Your task to perform on an android device: turn off notifications settings in the gmail app Image 0: 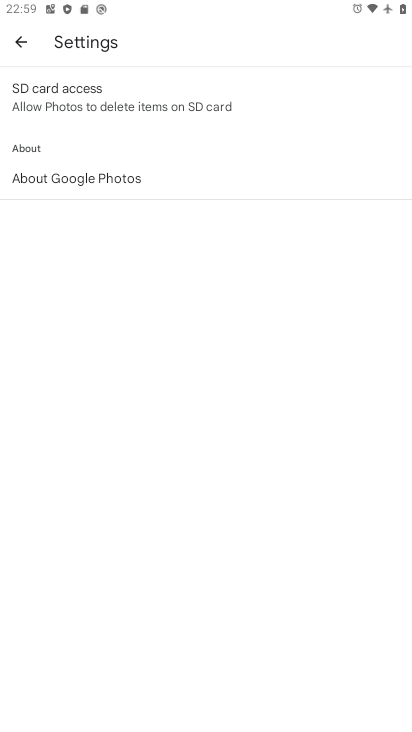
Step 0: press home button
Your task to perform on an android device: turn off notifications settings in the gmail app Image 1: 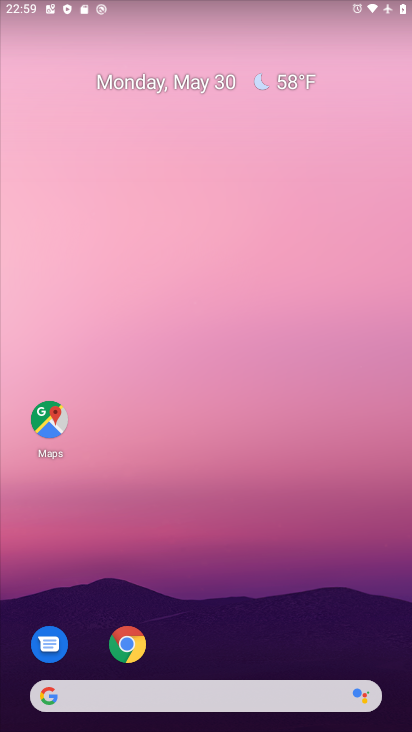
Step 1: drag from (396, 652) to (322, 156)
Your task to perform on an android device: turn off notifications settings in the gmail app Image 2: 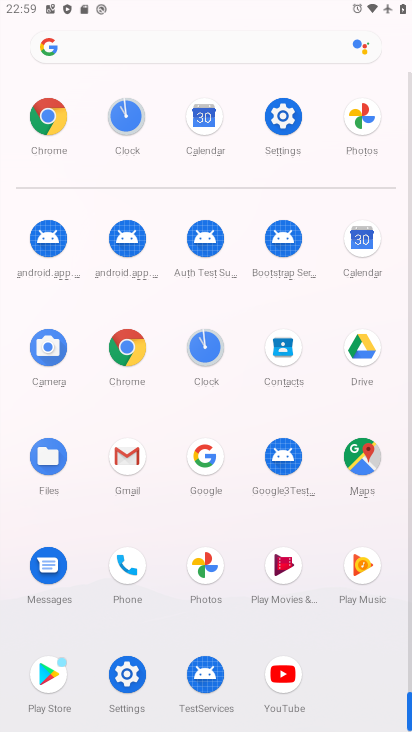
Step 2: click (126, 453)
Your task to perform on an android device: turn off notifications settings in the gmail app Image 3: 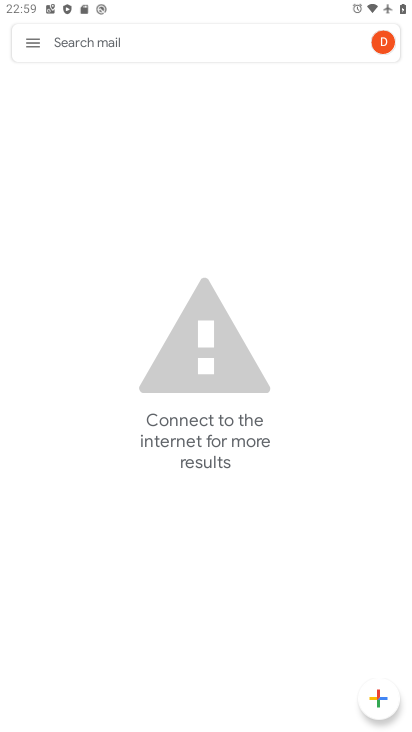
Step 3: click (28, 41)
Your task to perform on an android device: turn off notifications settings in the gmail app Image 4: 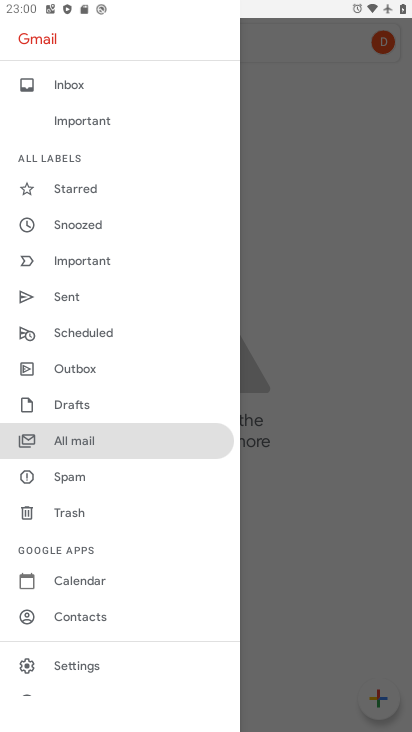
Step 4: drag from (121, 656) to (144, 370)
Your task to perform on an android device: turn off notifications settings in the gmail app Image 5: 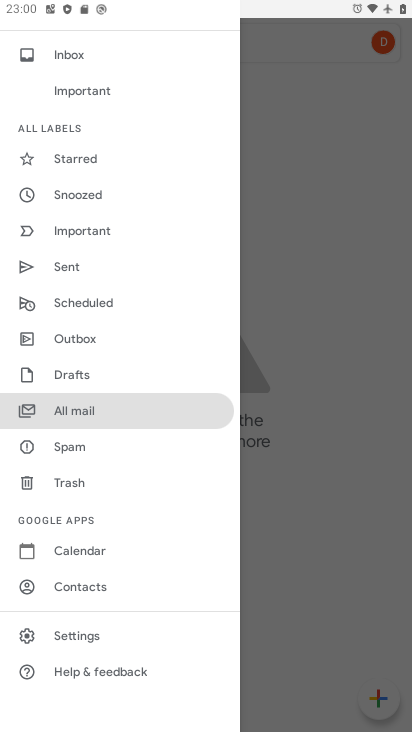
Step 5: click (60, 638)
Your task to perform on an android device: turn off notifications settings in the gmail app Image 6: 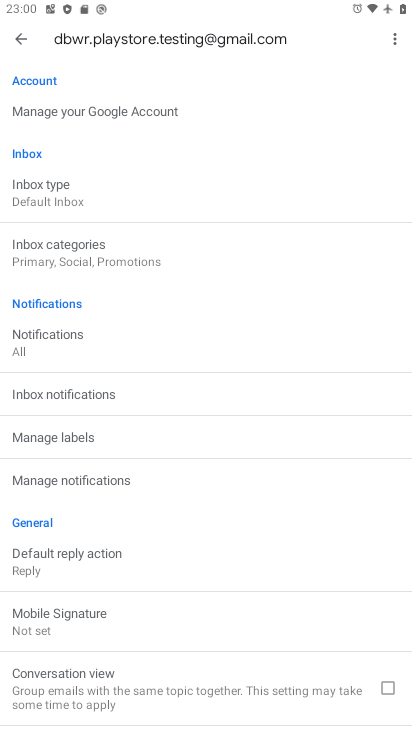
Step 6: click (63, 487)
Your task to perform on an android device: turn off notifications settings in the gmail app Image 7: 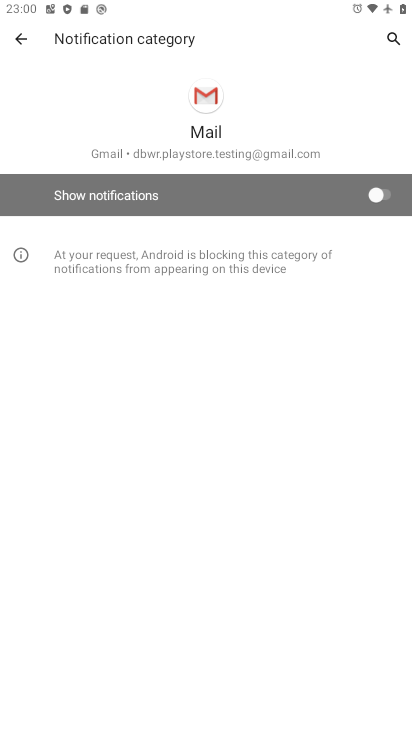
Step 7: task complete